Your task to perform on an android device: What is the recent news? Image 0: 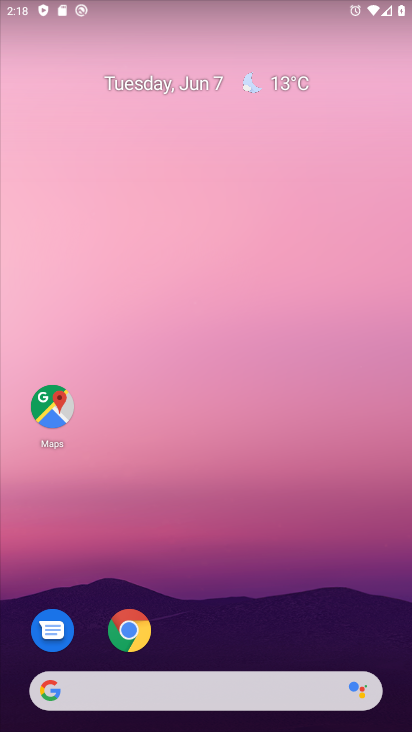
Step 0: drag from (4, 322) to (373, 332)
Your task to perform on an android device: What is the recent news? Image 1: 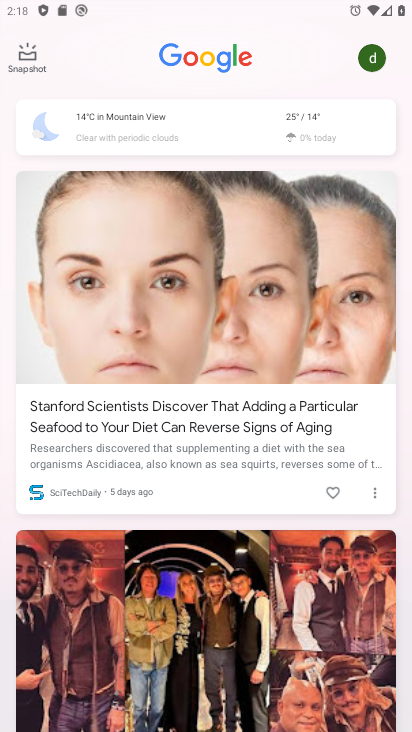
Step 1: task complete